Your task to perform on an android device: Open the map Image 0: 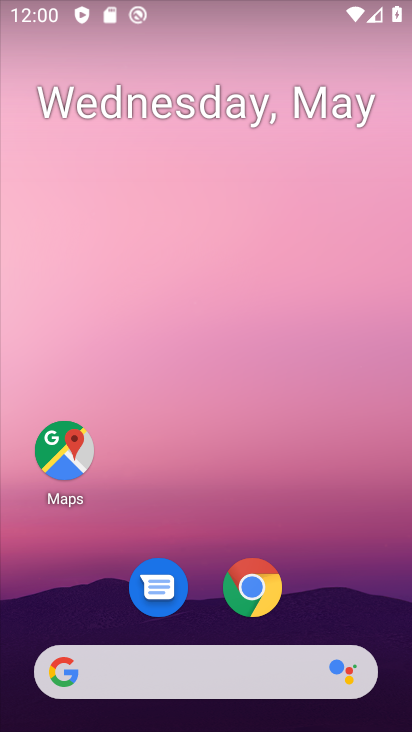
Step 0: click (54, 471)
Your task to perform on an android device: Open the map Image 1: 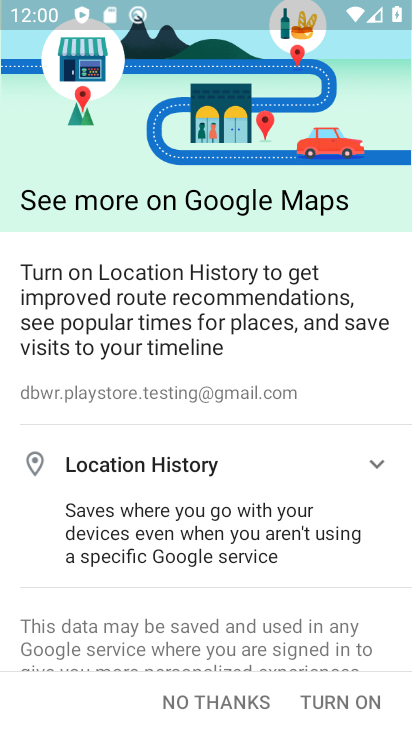
Step 1: task complete